Your task to perform on an android device: turn off smart reply in the gmail app Image 0: 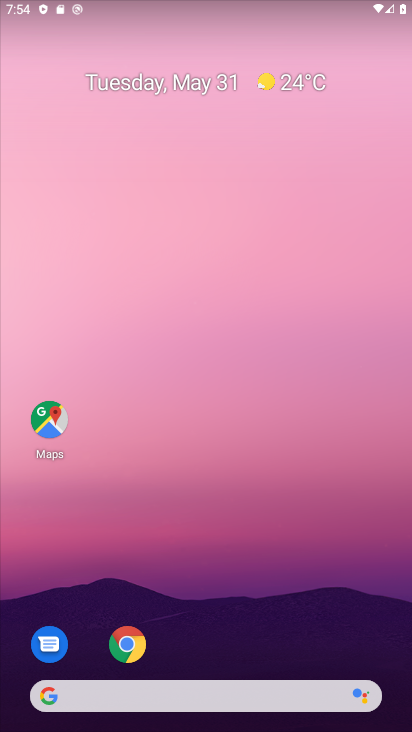
Step 0: drag from (308, 355) to (279, 99)
Your task to perform on an android device: turn off smart reply in the gmail app Image 1: 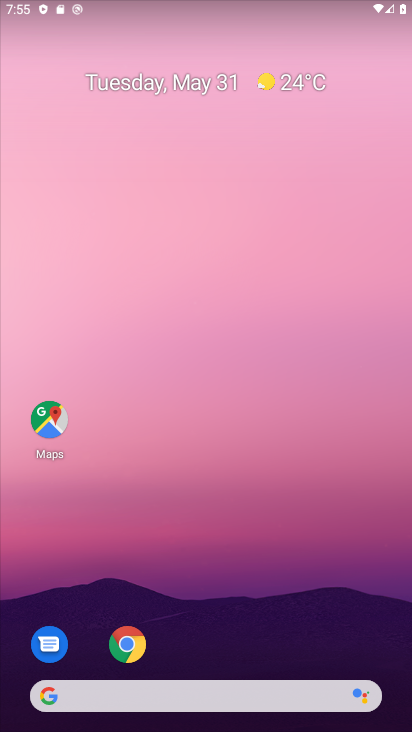
Step 1: drag from (275, 649) to (284, 196)
Your task to perform on an android device: turn off smart reply in the gmail app Image 2: 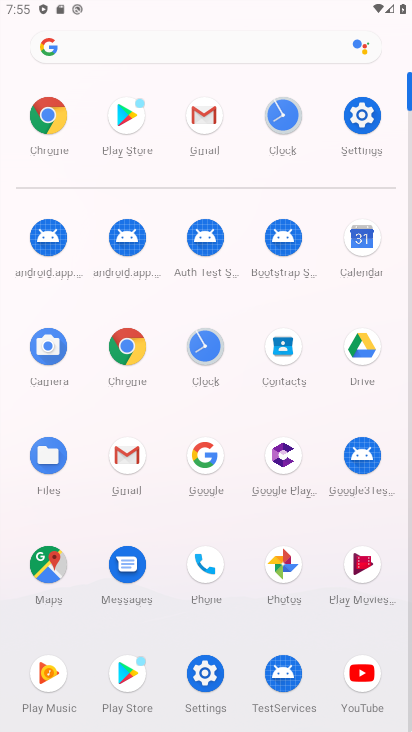
Step 2: click (130, 454)
Your task to perform on an android device: turn off smart reply in the gmail app Image 3: 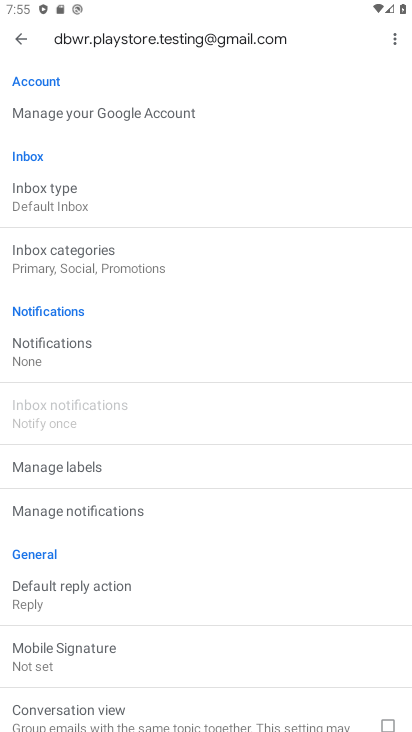
Step 3: drag from (146, 630) to (191, 306)
Your task to perform on an android device: turn off smart reply in the gmail app Image 4: 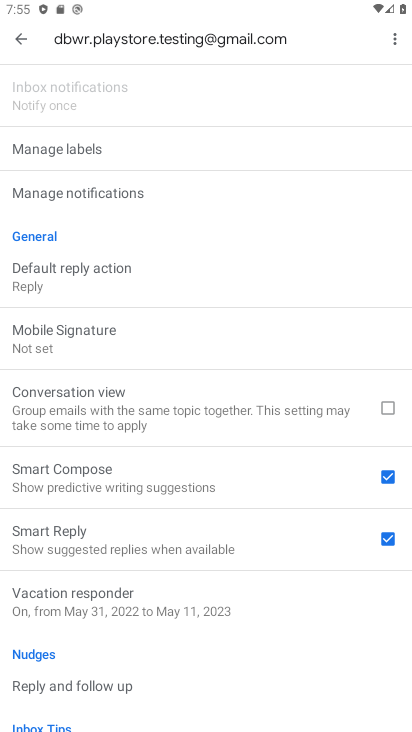
Step 4: click (389, 541)
Your task to perform on an android device: turn off smart reply in the gmail app Image 5: 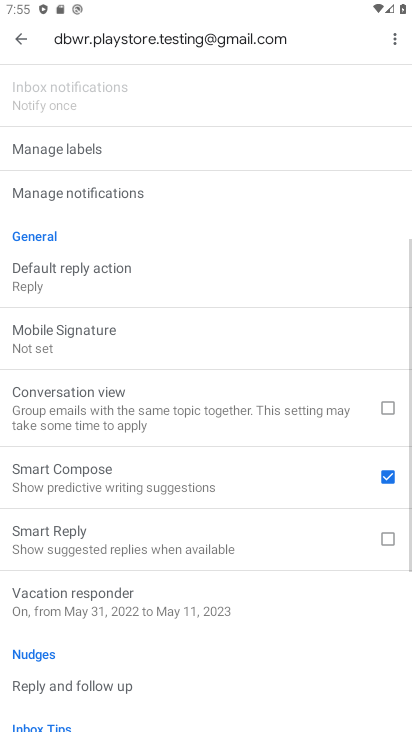
Step 5: task complete